Your task to perform on an android device: Open calendar and show me the second week of next month Image 0: 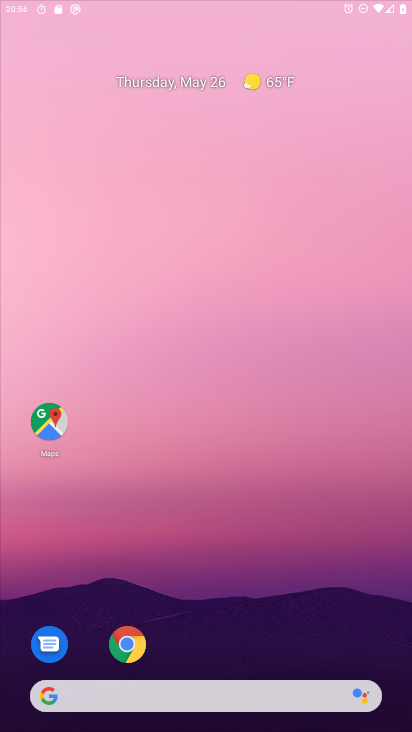
Step 0: drag from (337, 85) to (312, 3)
Your task to perform on an android device: Open calendar and show me the second week of next month Image 1: 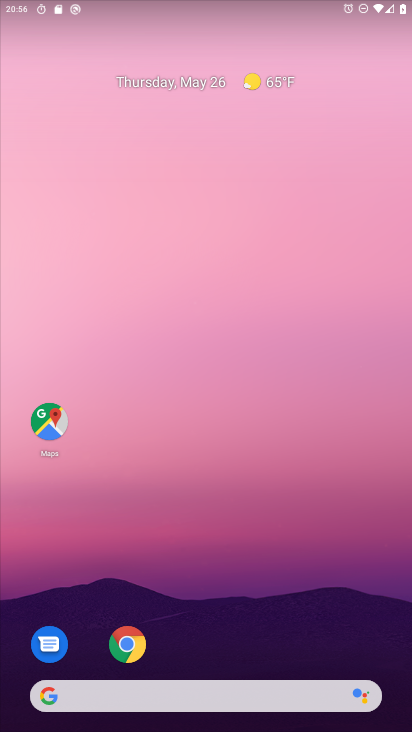
Step 1: drag from (187, 613) to (225, 287)
Your task to perform on an android device: Open calendar and show me the second week of next month Image 2: 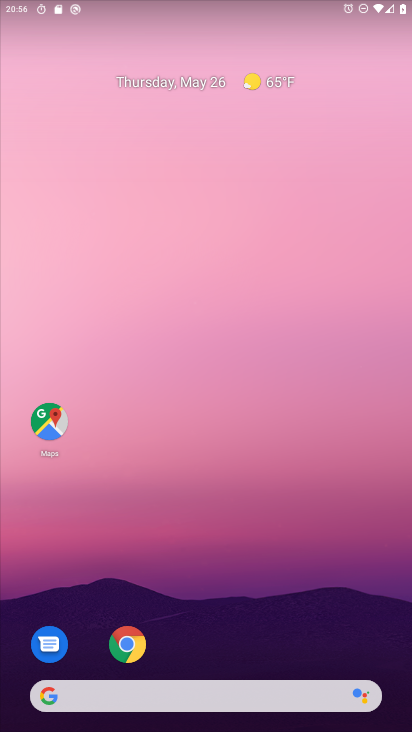
Step 2: drag from (188, 655) to (289, 12)
Your task to perform on an android device: Open calendar and show me the second week of next month Image 3: 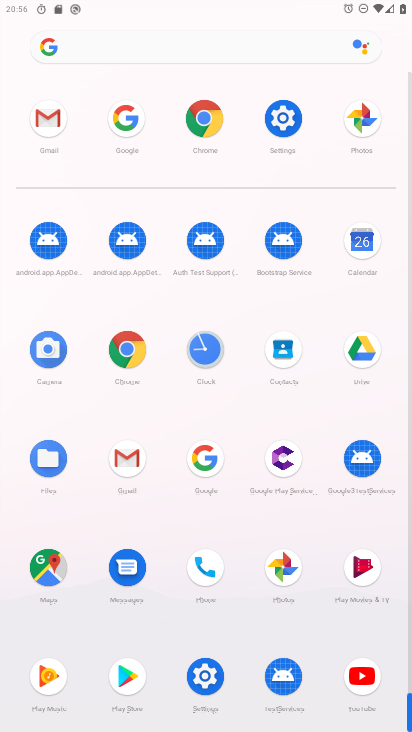
Step 3: click (357, 240)
Your task to perform on an android device: Open calendar and show me the second week of next month Image 4: 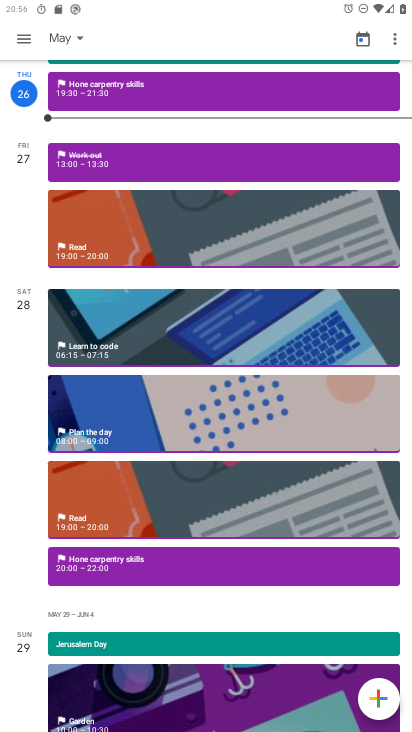
Step 4: drag from (227, 122) to (263, 728)
Your task to perform on an android device: Open calendar and show me the second week of next month Image 5: 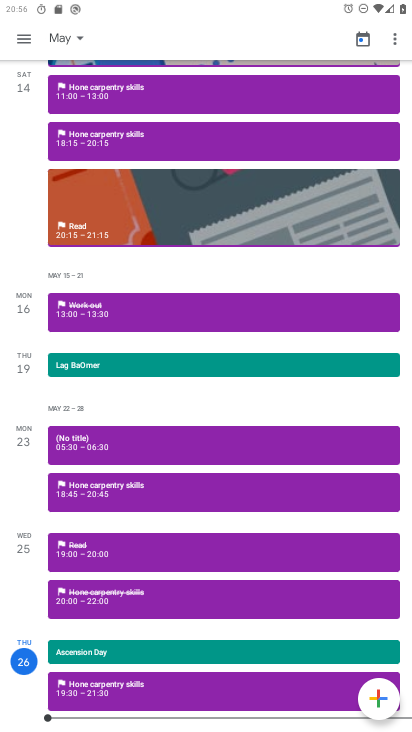
Step 5: click (69, 39)
Your task to perform on an android device: Open calendar and show me the second week of next month Image 6: 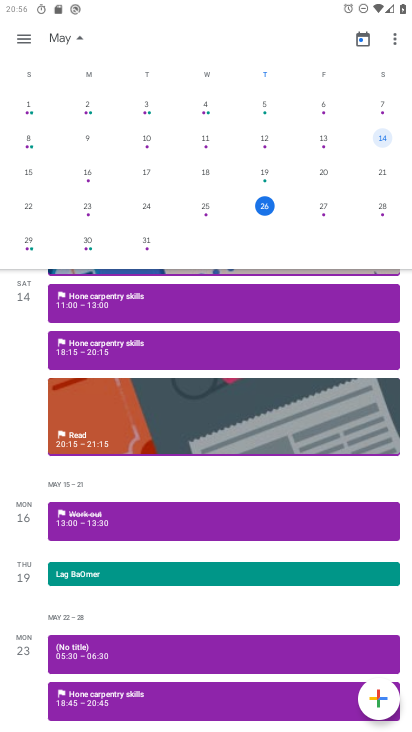
Step 6: drag from (386, 192) to (14, 130)
Your task to perform on an android device: Open calendar and show me the second week of next month Image 7: 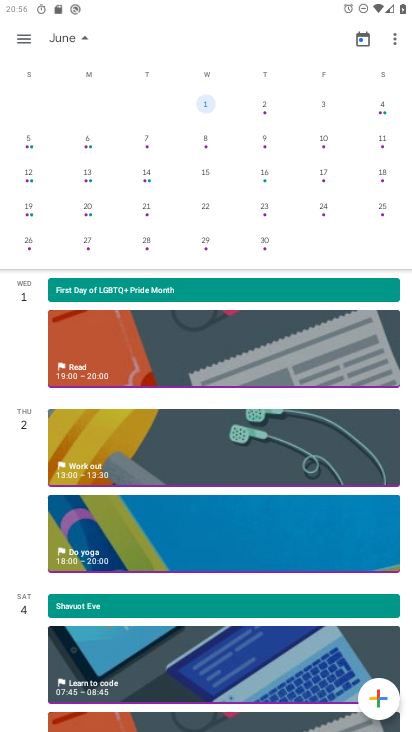
Step 7: click (205, 138)
Your task to perform on an android device: Open calendar and show me the second week of next month Image 8: 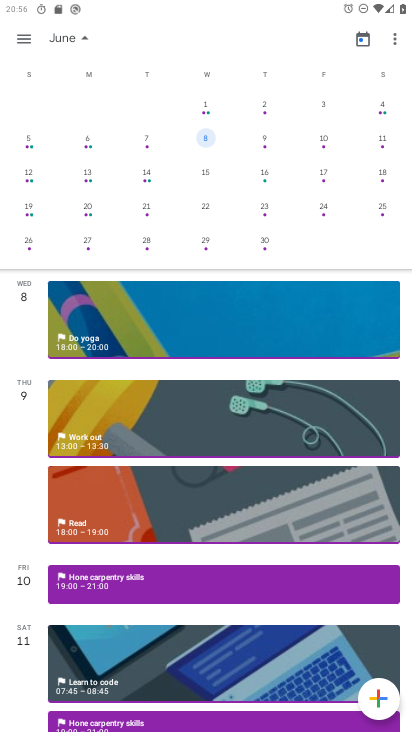
Step 8: task complete